Your task to perform on an android device: Check the news Image 0: 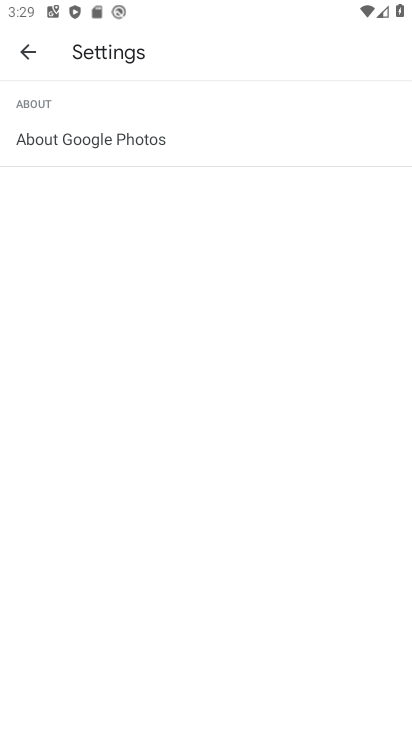
Step 0: press home button
Your task to perform on an android device: Check the news Image 1: 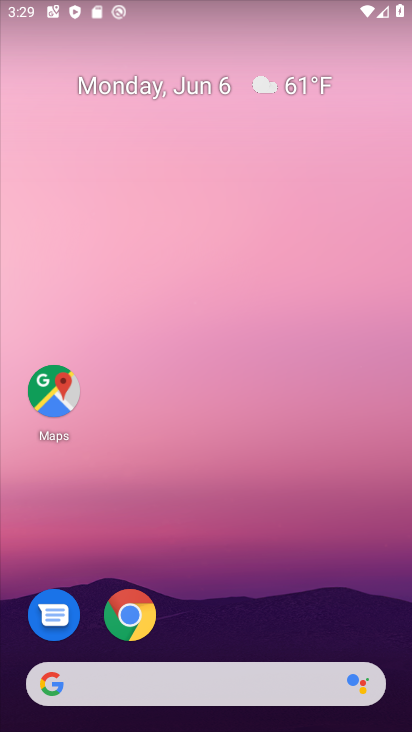
Step 1: task complete